Your task to perform on an android device: What's the weather going to be this weekend? Image 0: 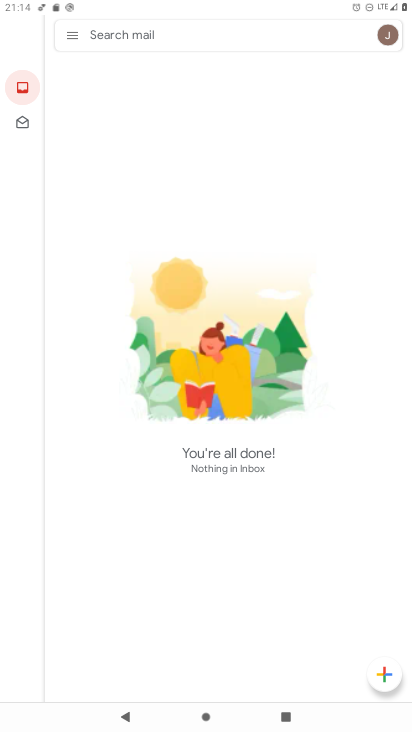
Step 0: press home button
Your task to perform on an android device: What's the weather going to be this weekend? Image 1: 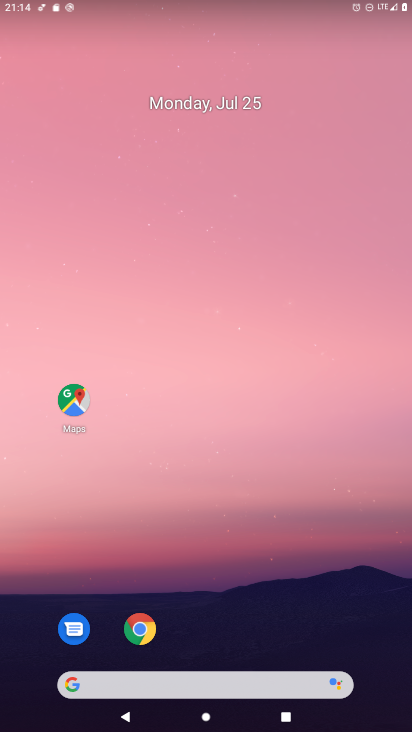
Step 1: click (140, 632)
Your task to perform on an android device: What's the weather going to be this weekend? Image 2: 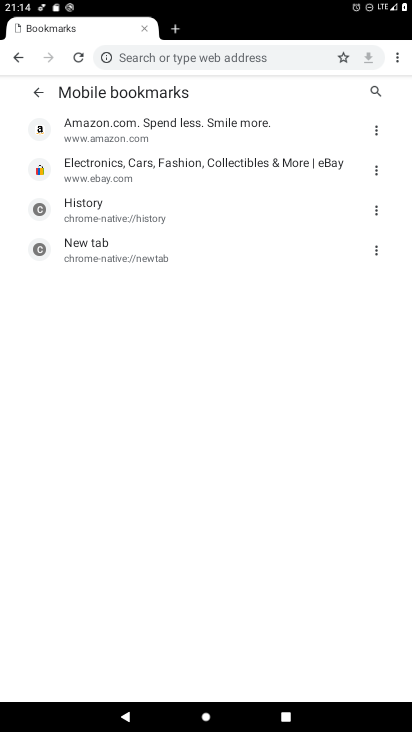
Step 2: click (259, 62)
Your task to perform on an android device: What's the weather going to be this weekend? Image 3: 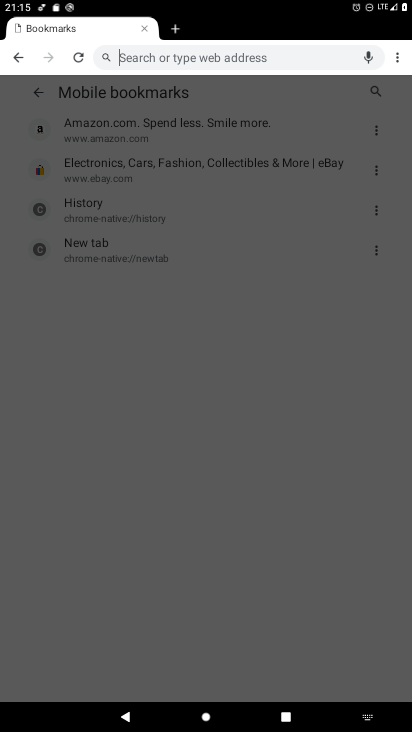
Step 3: type "What's "
Your task to perform on an android device: What's the weather going to be this weekend? Image 4: 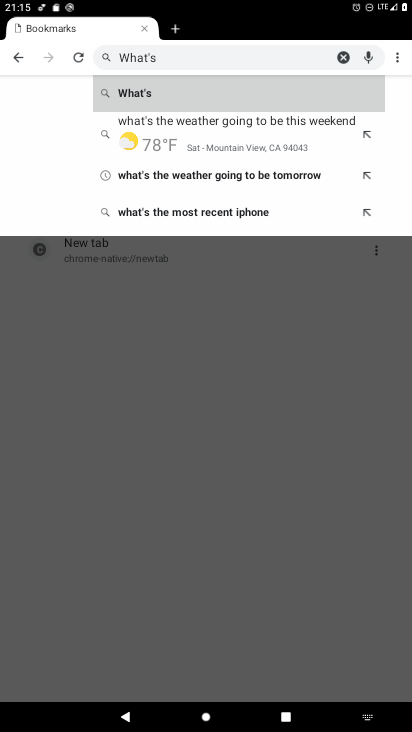
Step 4: type "the weather "
Your task to perform on an android device: What's the weather going to be this weekend? Image 5: 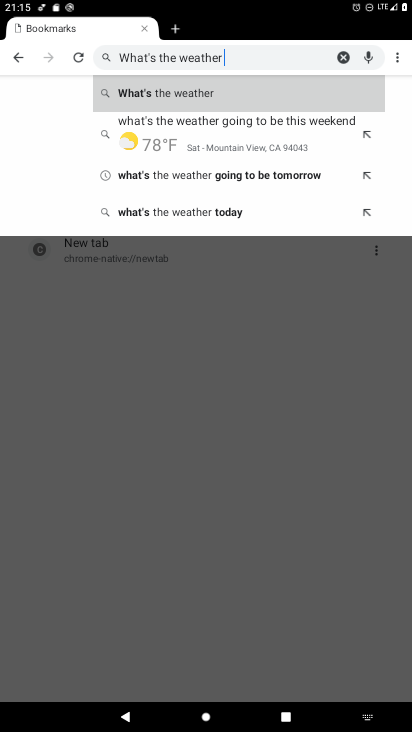
Step 5: click (288, 168)
Your task to perform on an android device: What's the weather going to be this weekend? Image 6: 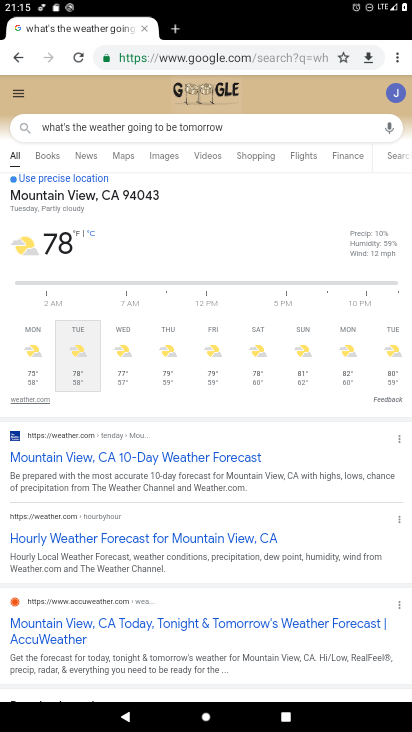
Step 6: task complete